Your task to perform on an android device: Go to network settings Image 0: 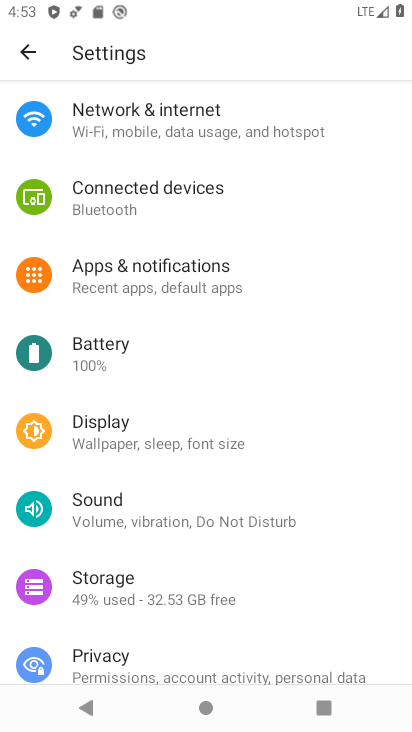
Step 0: drag from (306, 186) to (290, 552)
Your task to perform on an android device: Go to network settings Image 1: 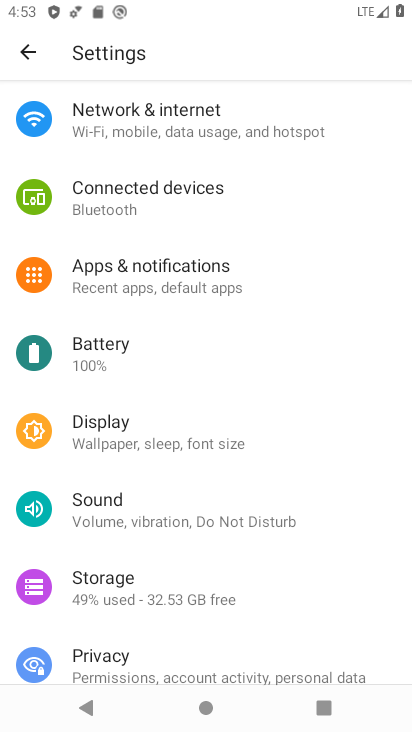
Step 1: click (250, 128)
Your task to perform on an android device: Go to network settings Image 2: 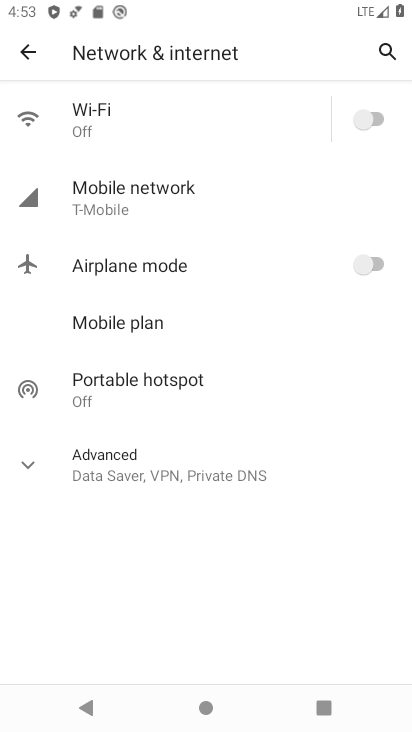
Step 2: click (191, 173)
Your task to perform on an android device: Go to network settings Image 3: 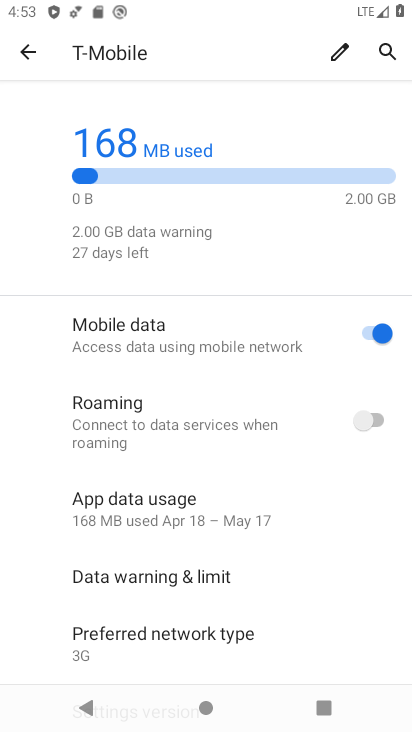
Step 3: task complete